Your task to perform on an android device: toggle notifications settings in the gmail app Image 0: 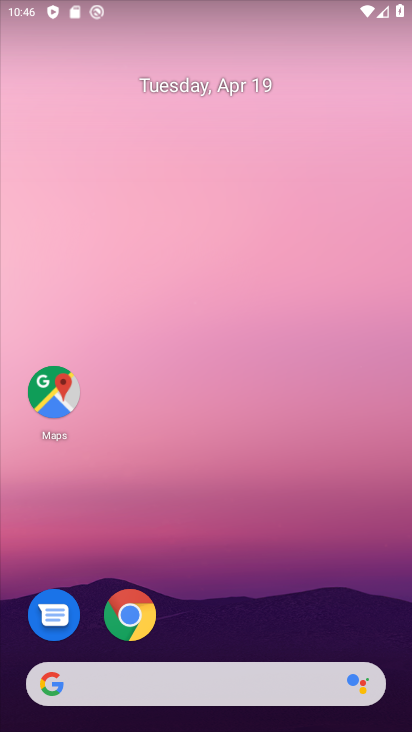
Step 0: drag from (214, 471) to (259, 43)
Your task to perform on an android device: toggle notifications settings in the gmail app Image 1: 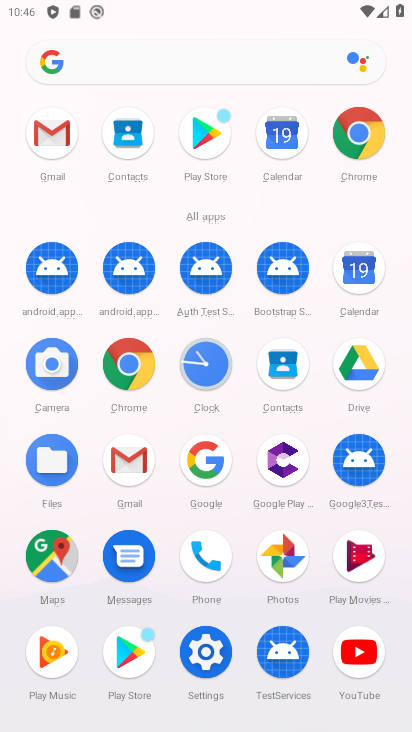
Step 1: click (53, 132)
Your task to perform on an android device: toggle notifications settings in the gmail app Image 2: 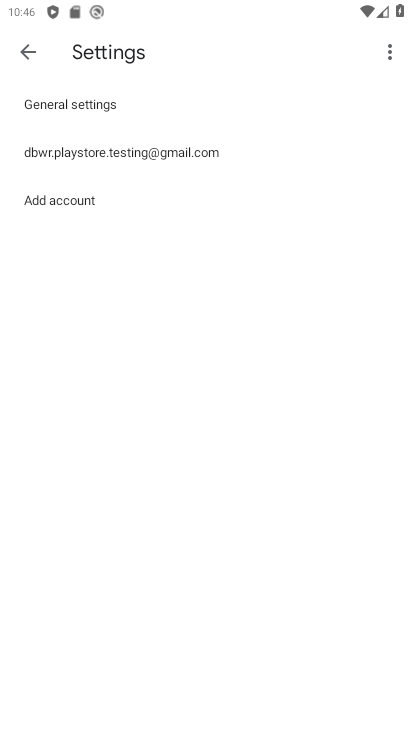
Step 2: click (87, 154)
Your task to perform on an android device: toggle notifications settings in the gmail app Image 3: 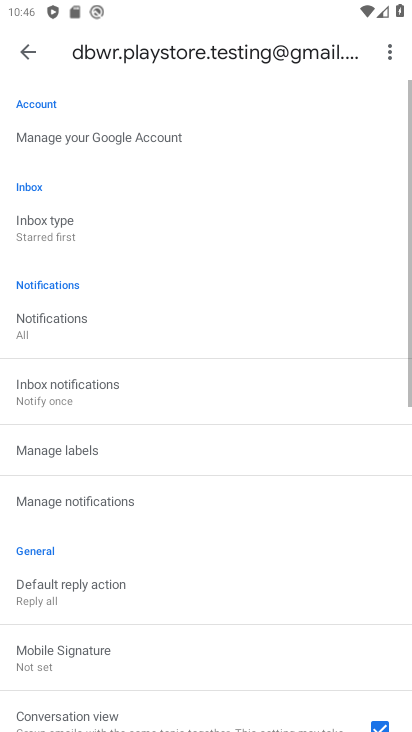
Step 3: click (53, 333)
Your task to perform on an android device: toggle notifications settings in the gmail app Image 4: 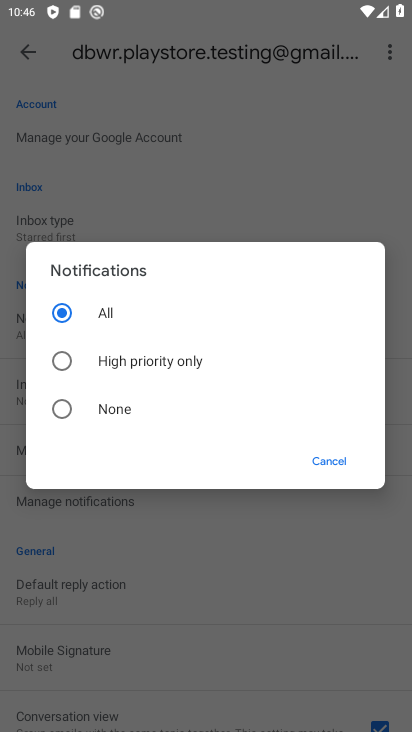
Step 4: click (59, 403)
Your task to perform on an android device: toggle notifications settings in the gmail app Image 5: 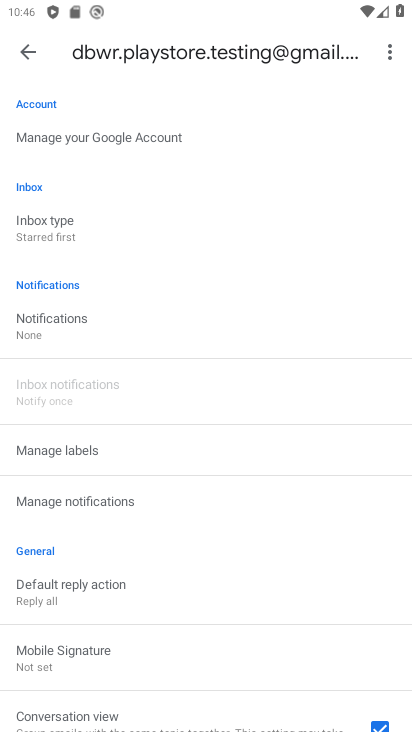
Step 5: task complete